Your task to perform on an android device: Search for vegetarian restaurants on Maps Image 0: 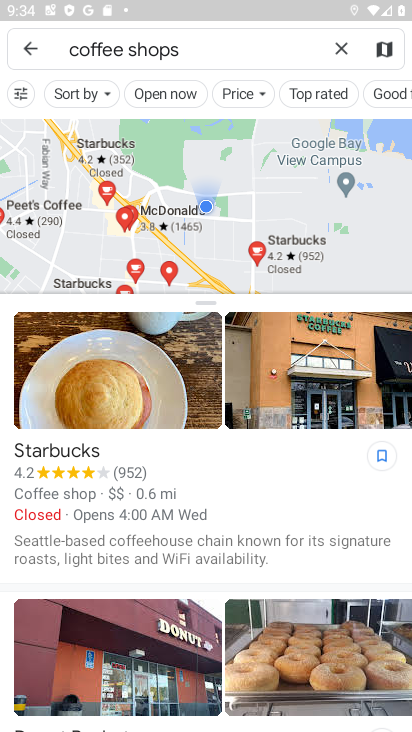
Step 0: click (337, 43)
Your task to perform on an android device: Search for vegetarian restaurants on Maps Image 1: 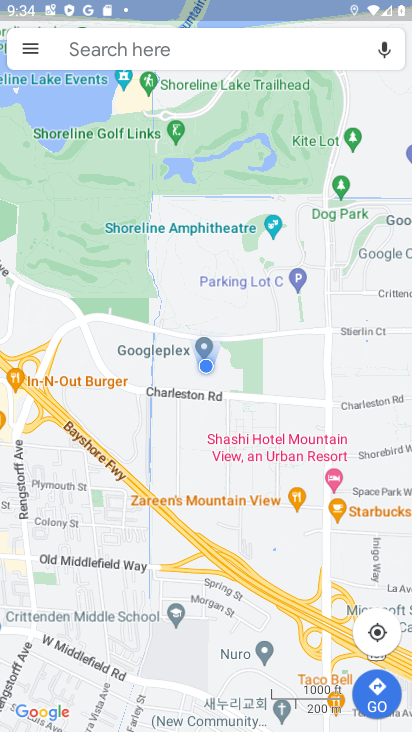
Step 1: click (232, 55)
Your task to perform on an android device: Search for vegetarian restaurants on Maps Image 2: 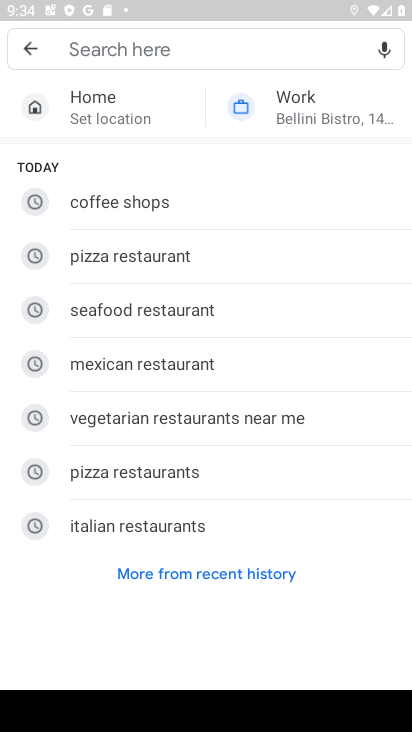
Step 2: type ""
Your task to perform on an android device: Search for vegetarian restaurants on Maps Image 3: 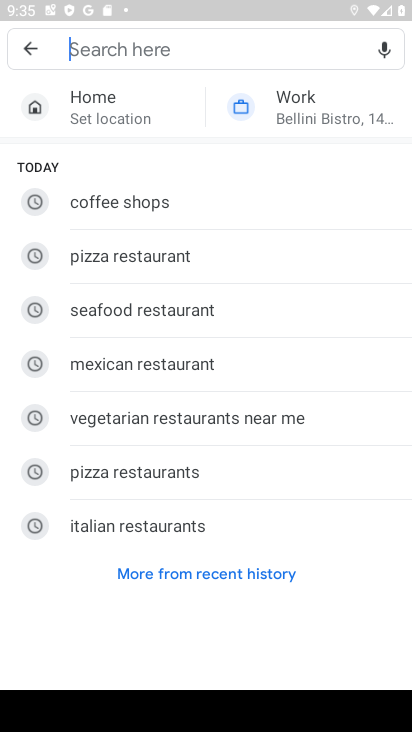
Step 3: type "vegetarian restaurants"
Your task to perform on an android device: Search for vegetarian restaurants on Maps Image 4: 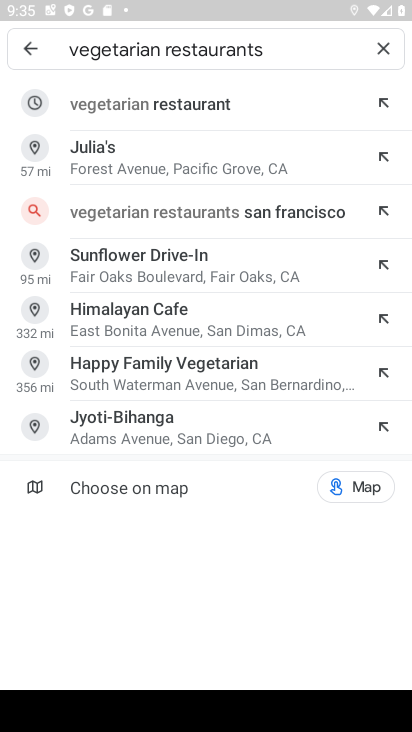
Step 4: click (220, 118)
Your task to perform on an android device: Search for vegetarian restaurants on Maps Image 5: 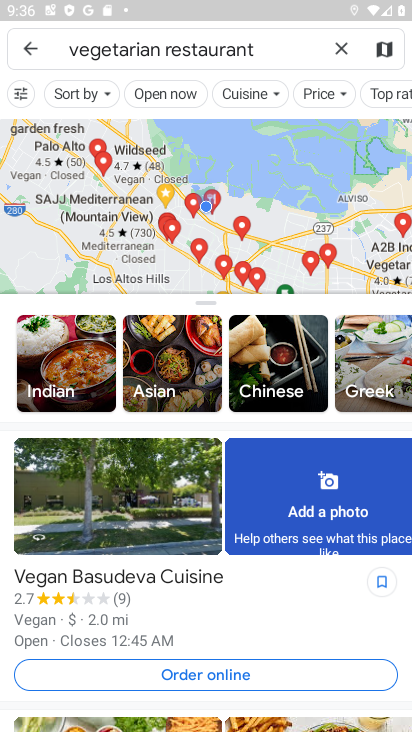
Step 5: task complete